Your task to perform on an android device: Search for seafood restaurants on Google Maps Image 0: 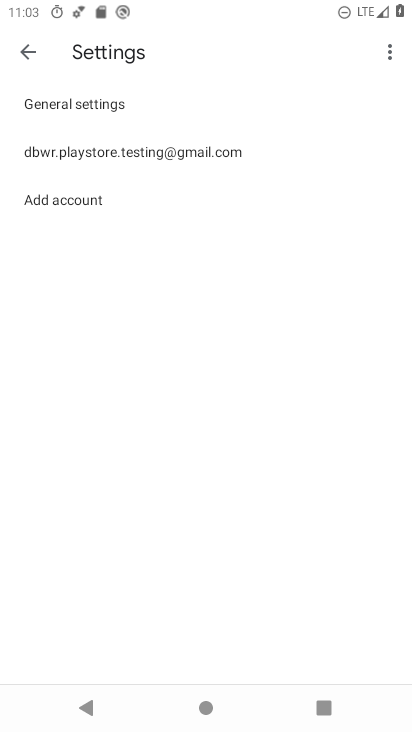
Step 0: click (27, 41)
Your task to perform on an android device: Search for seafood restaurants on Google Maps Image 1: 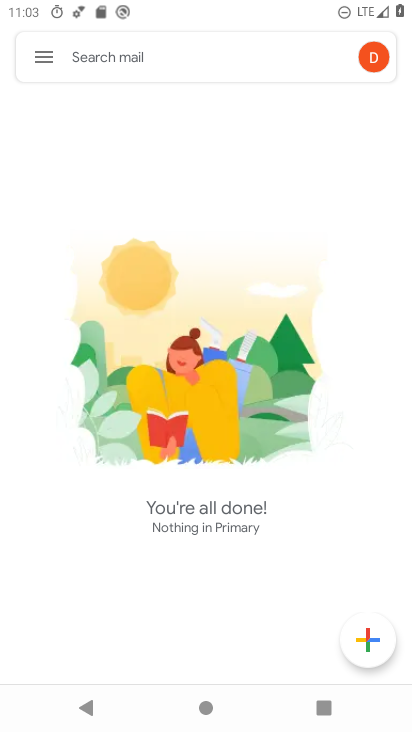
Step 1: press home button
Your task to perform on an android device: Search for seafood restaurants on Google Maps Image 2: 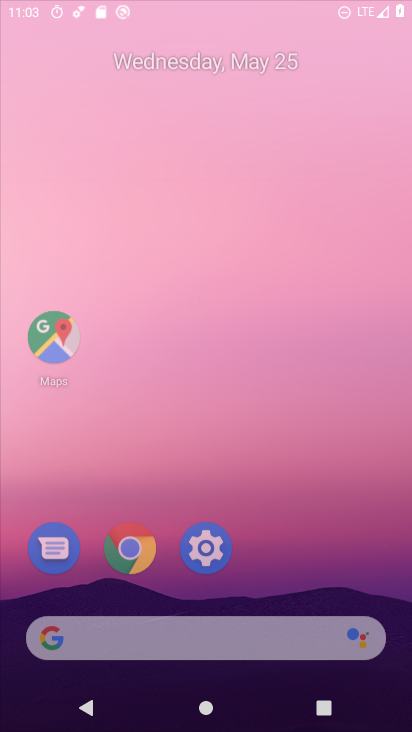
Step 2: press home button
Your task to perform on an android device: Search for seafood restaurants on Google Maps Image 3: 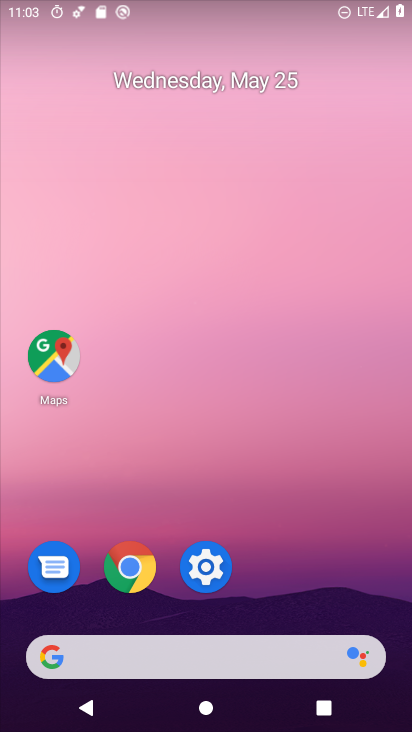
Step 3: drag from (244, 519) to (102, 55)
Your task to perform on an android device: Search for seafood restaurants on Google Maps Image 4: 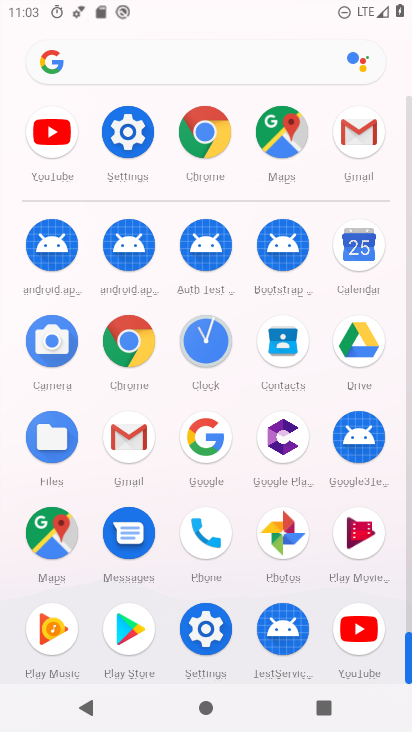
Step 4: click (287, 140)
Your task to perform on an android device: Search for seafood restaurants on Google Maps Image 5: 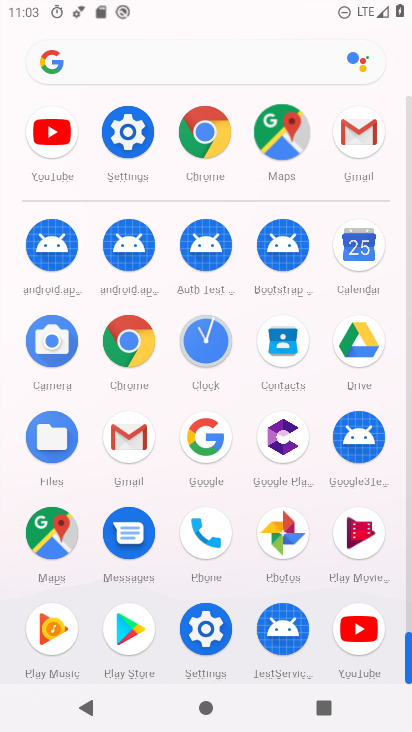
Step 5: click (287, 140)
Your task to perform on an android device: Search for seafood restaurants on Google Maps Image 6: 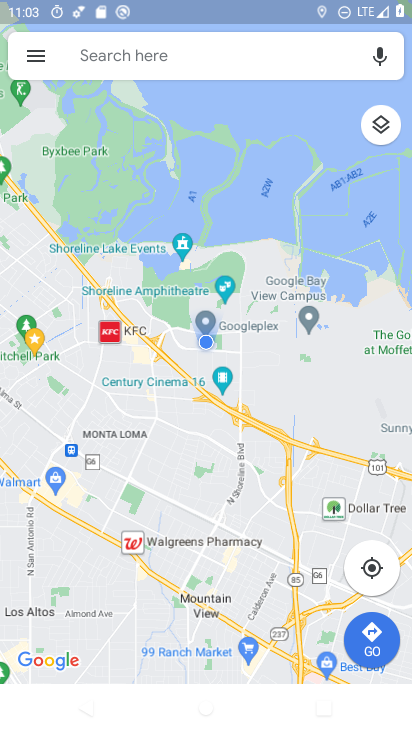
Step 6: click (78, 55)
Your task to perform on an android device: Search for seafood restaurants on Google Maps Image 7: 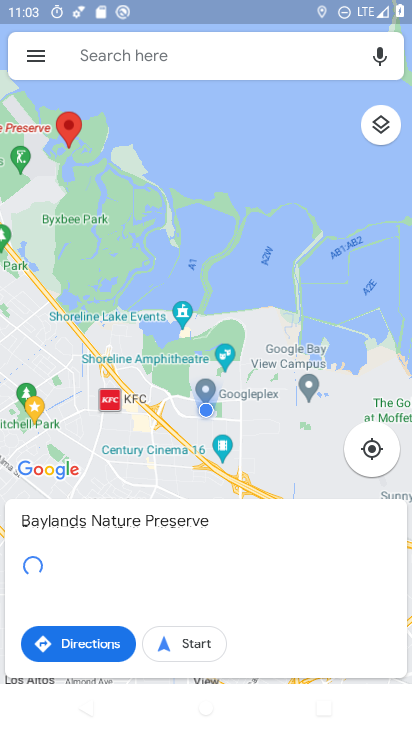
Step 7: click (88, 52)
Your task to perform on an android device: Search for seafood restaurants on Google Maps Image 8: 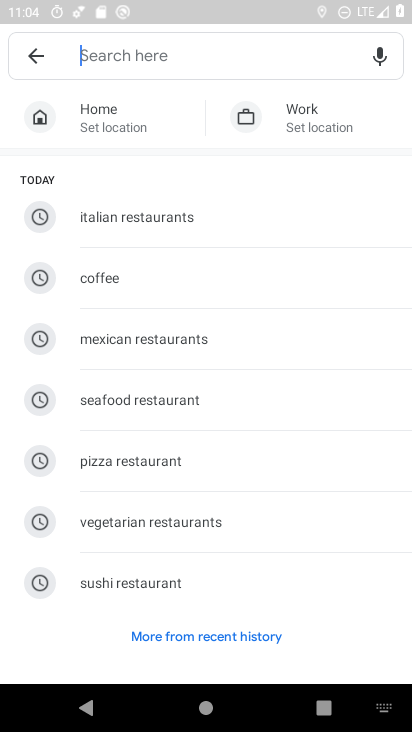
Step 8: click (115, 403)
Your task to perform on an android device: Search for seafood restaurants on Google Maps Image 9: 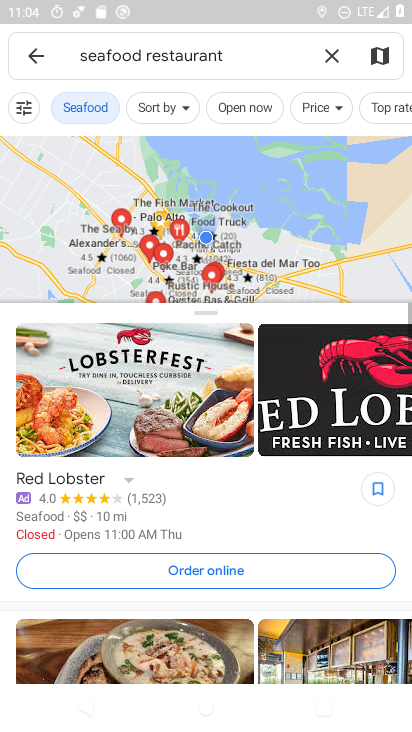
Step 9: task complete